Your task to perform on an android device: check storage Image 0: 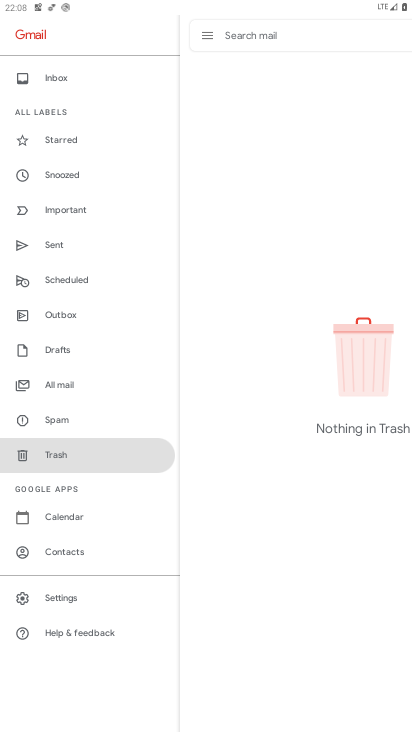
Step 0: press home button
Your task to perform on an android device: check storage Image 1: 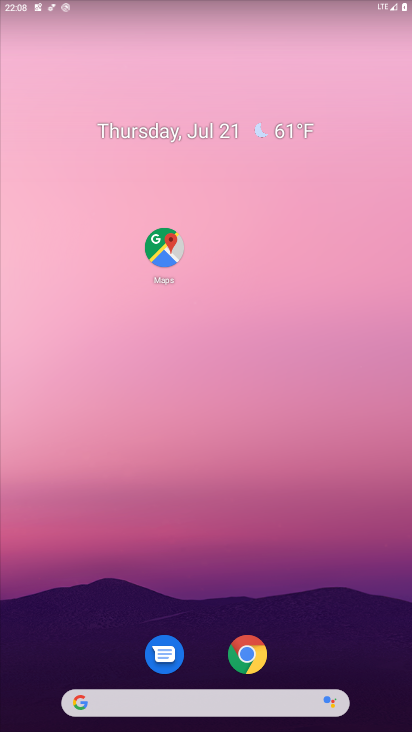
Step 1: drag from (50, 683) to (166, 290)
Your task to perform on an android device: check storage Image 2: 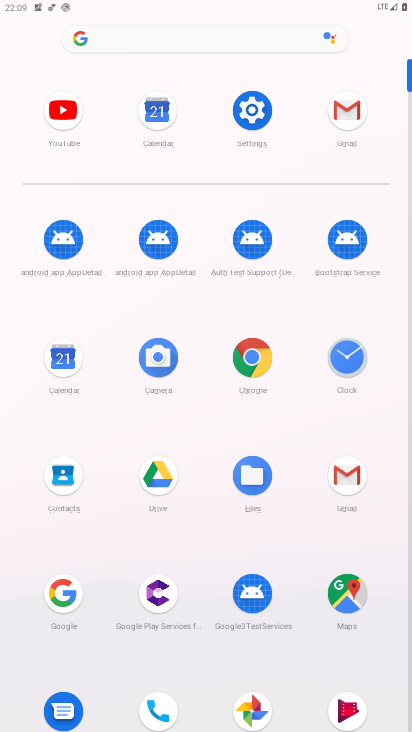
Step 2: drag from (193, 561) to (171, 185)
Your task to perform on an android device: check storage Image 3: 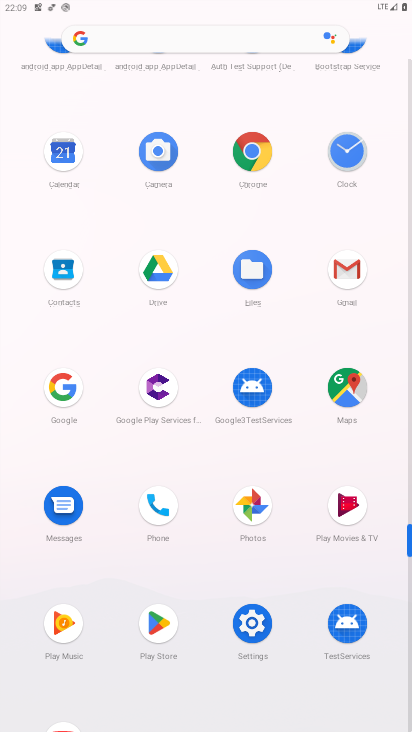
Step 3: click (247, 635)
Your task to perform on an android device: check storage Image 4: 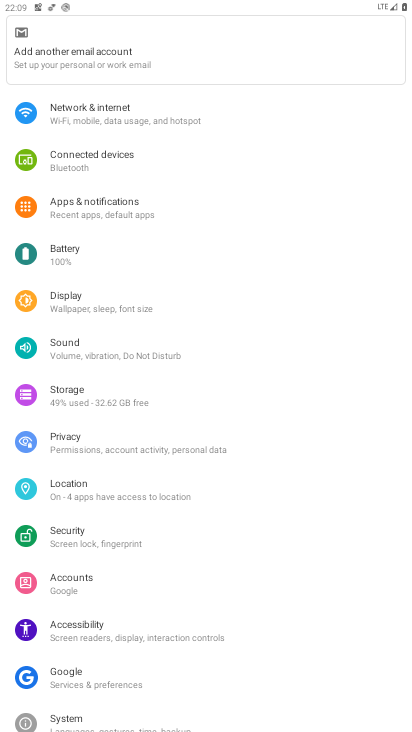
Step 4: click (86, 389)
Your task to perform on an android device: check storage Image 5: 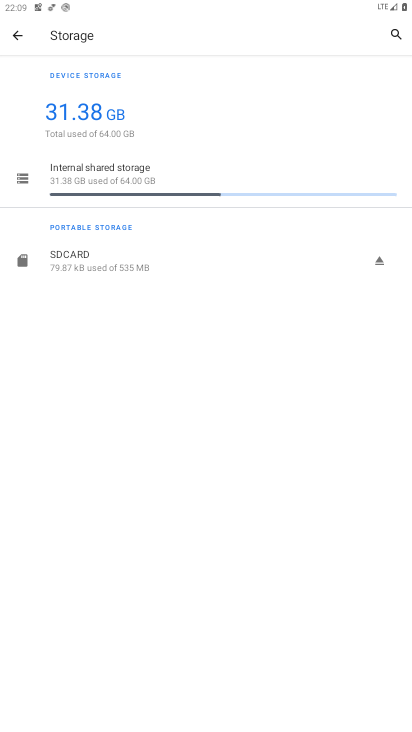
Step 5: task complete